Your task to perform on an android device: Go to Maps Image 0: 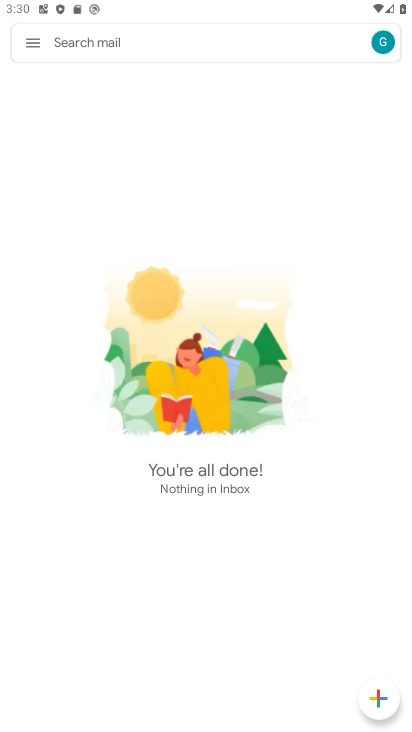
Step 0: press home button
Your task to perform on an android device: Go to Maps Image 1: 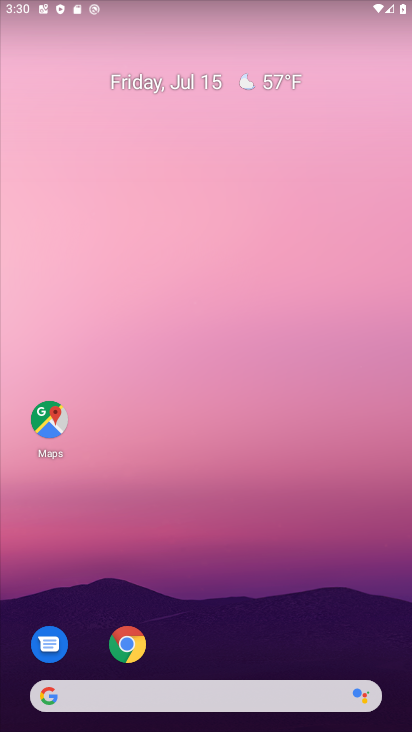
Step 1: click (56, 404)
Your task to perform on an android device: Go to Maps Image 2: 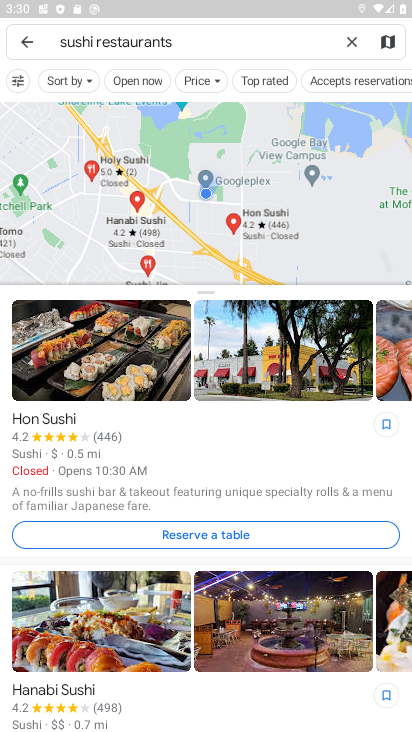
Step 2: task complete